Your task to perform on an android device: turn on wifi Image 0: 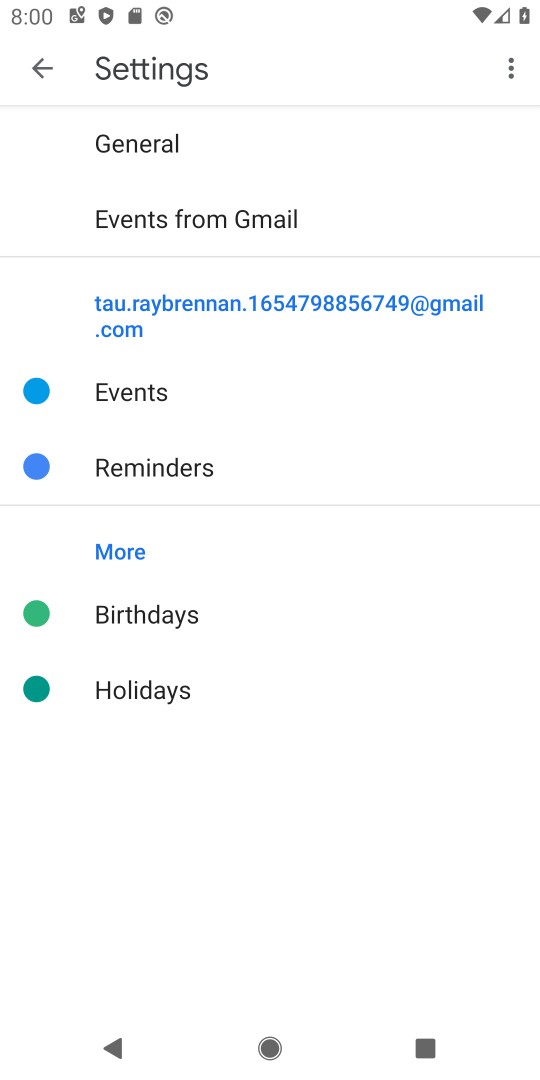
Step 0: press home button
Your task to perform on an android device: turn on wifi Image 1: 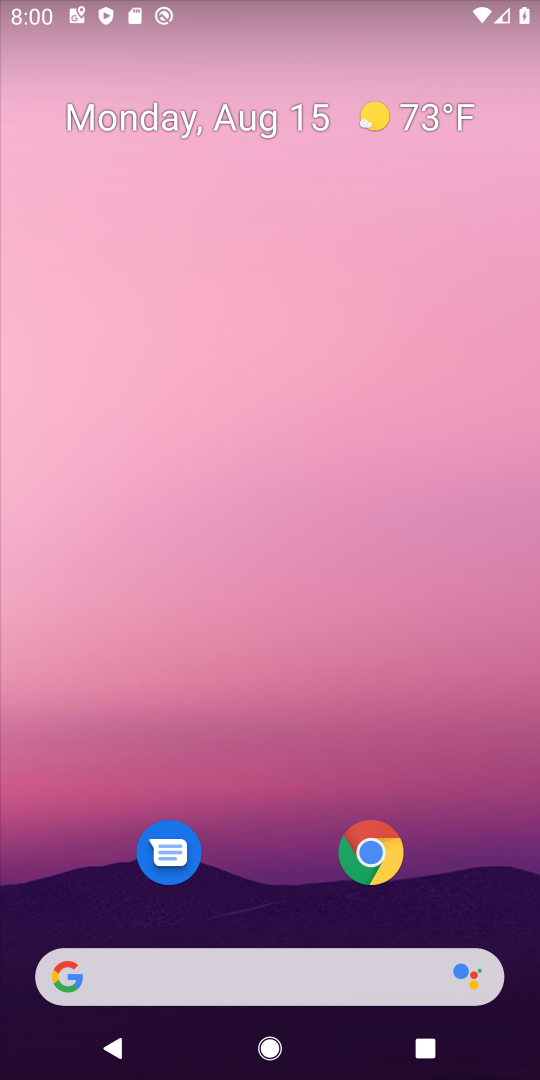
Step 1: drag from (248, 986) to (258, 267)
Your task to perform on an android device: turn on wifi Image 2: 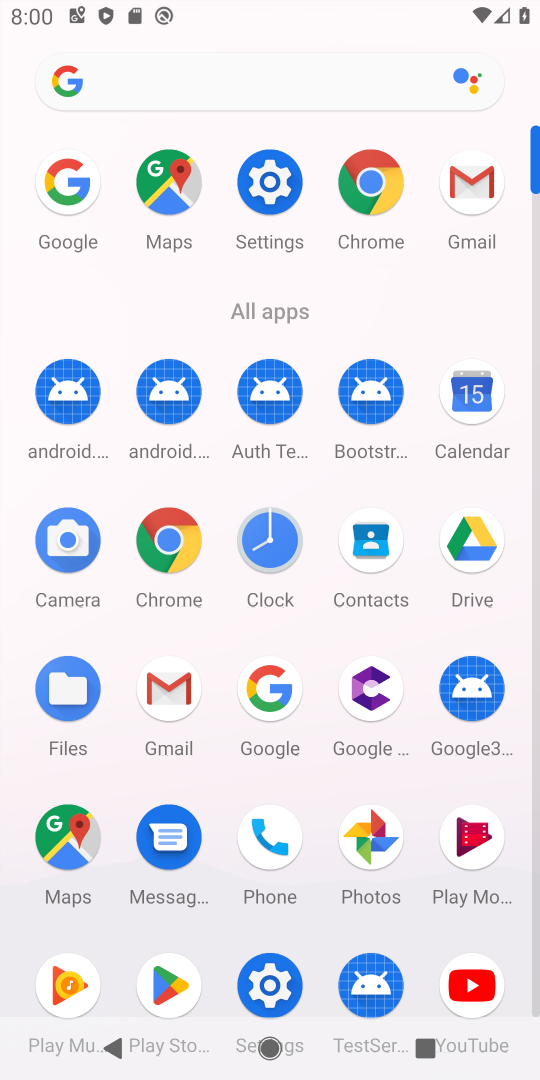
Step 2: click (271, 182)
Your task to perform on an android device: turn on wifi Image 3: 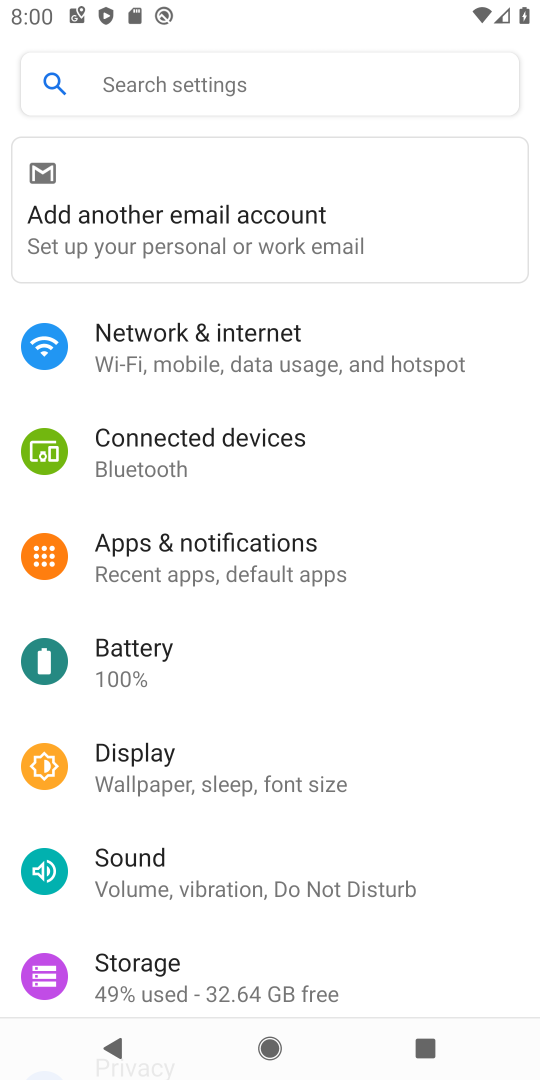
Step 3: click (245, 365)
Your task to perform on an android device: turn on wifi Image 4: 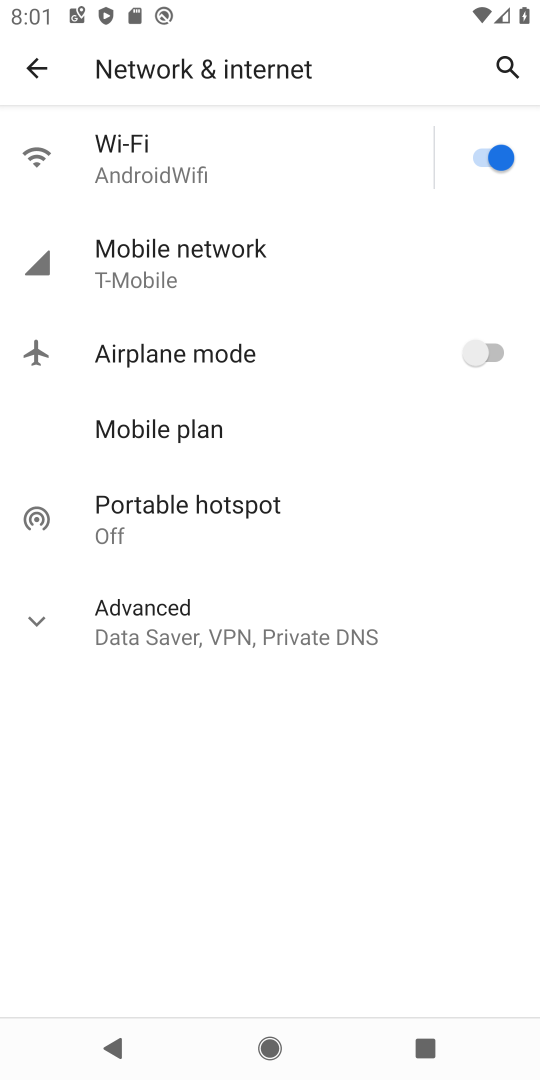
Step 4: task complete